Your task to perform on an android device: toggle data saver in the chrome app Image 0: 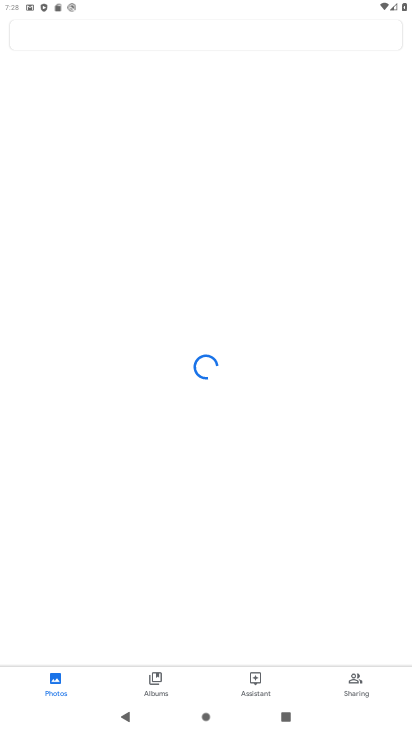
Step 0: press home button
Your task to perform on an android device: toggle data saver in the chrome app Image 1: 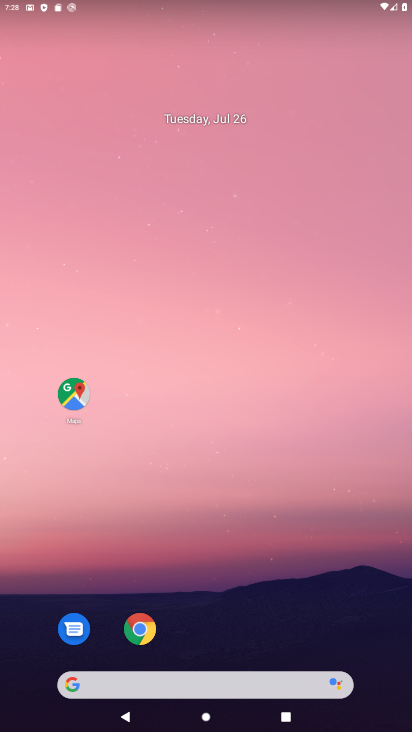
Step 1: click (139, 631)
Your task to perform on an android device: toggle data saver in the chrome app Image 2: 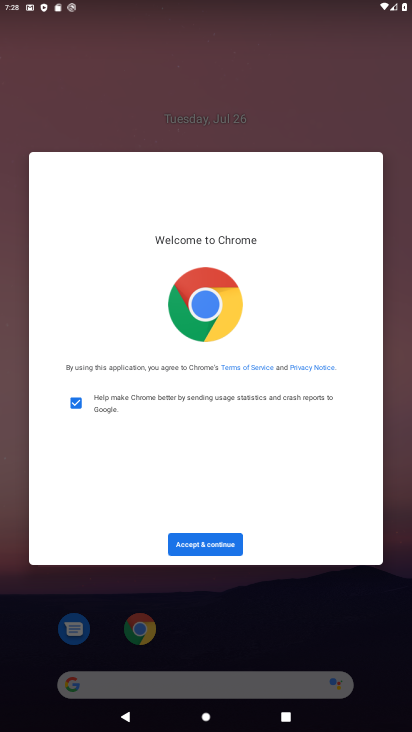
Step 2: click (203, 543)
Your task to perform on an android device: toggle data saver in the chrome app Image 3: 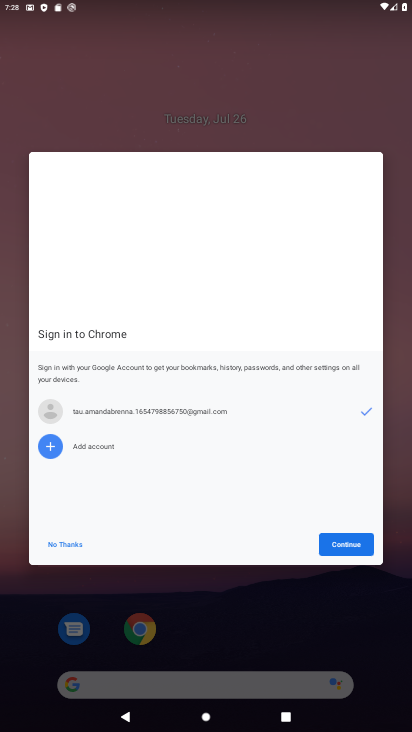
Step 3: click (332, 541)
Your task to perform on an android device: toggle data saver in the chrome app Image 4: 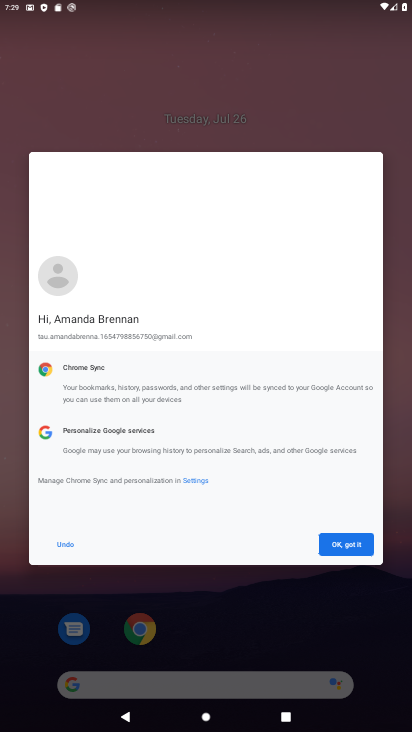
Step 4: click (347, 547)
Your task to perform on an android device: toggle data saver in the chrome app Image 5: 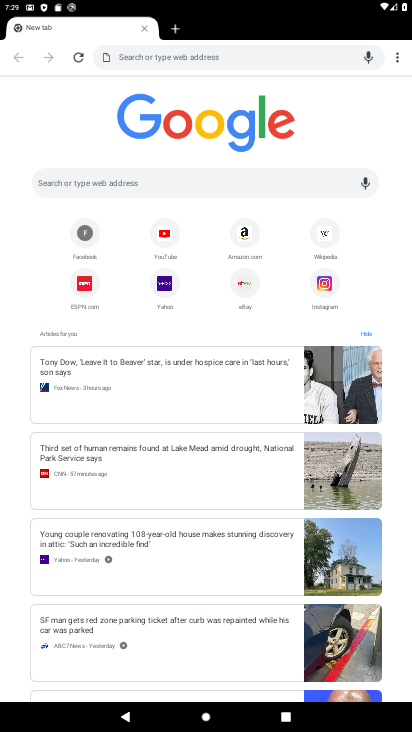
Step 5: click (398, 57)
Your task to perform on an android device: toggle data saver in the chrome app Image 6: 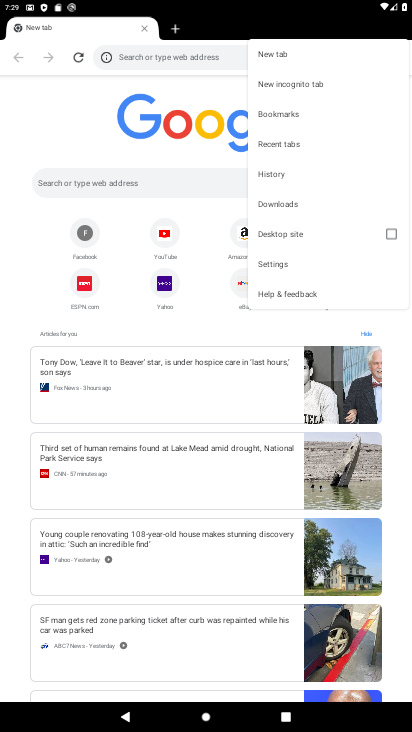
Step 6: click (290, 265)
Your task to perform on an android device: toggle data saver in the chrome app Image 7: 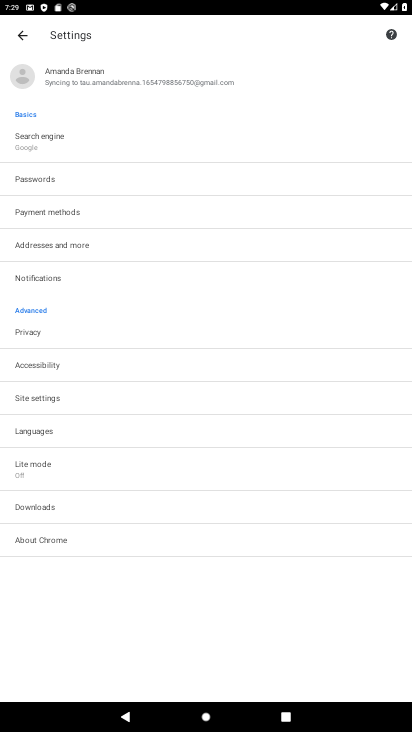
Step 7: click (39, 474)
Your task to perform on an android device: toggle data saver in the chrome app Image 8: 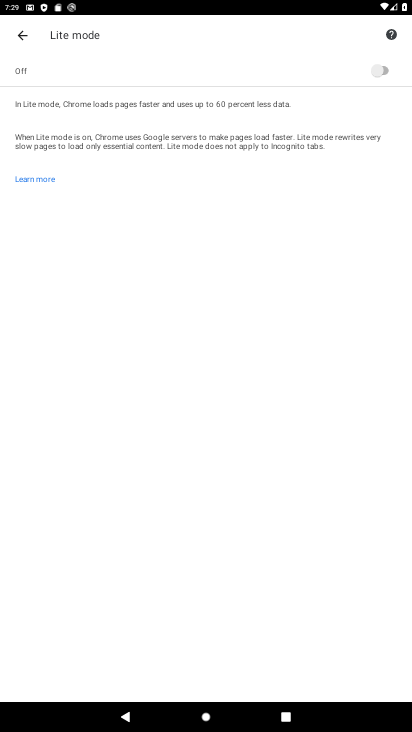
Step 8: click (388, 66)
Your task to perform on an android device: toggle data saver in the chrome app Image 9: 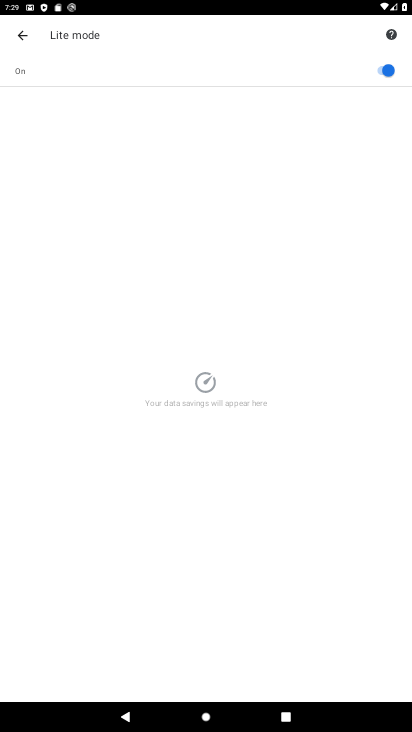
Step 9: task complete